Your task to perform on an android device: clear all cookies in the chrome app Image 0: 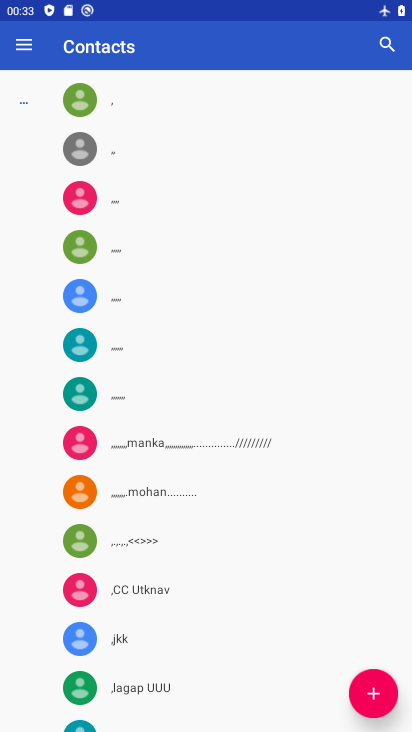
Step 0: press home button
Your task to perform on an android device: clear all cookies in the chrome app Image 1: 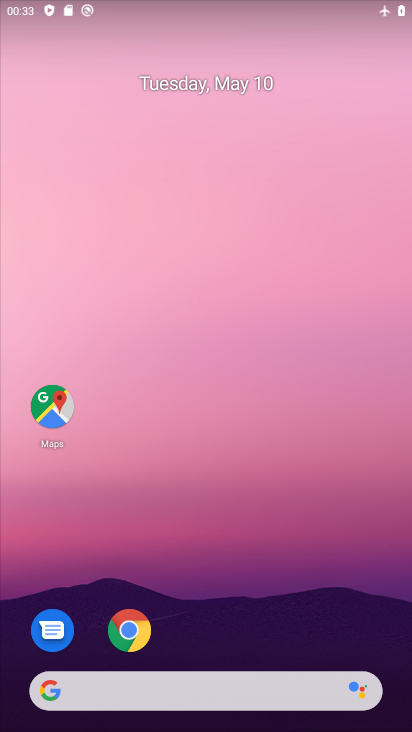
Step 1: click (126, 630)
Your task to perform on an android device: clear all cookies in the chrome app Image 2: 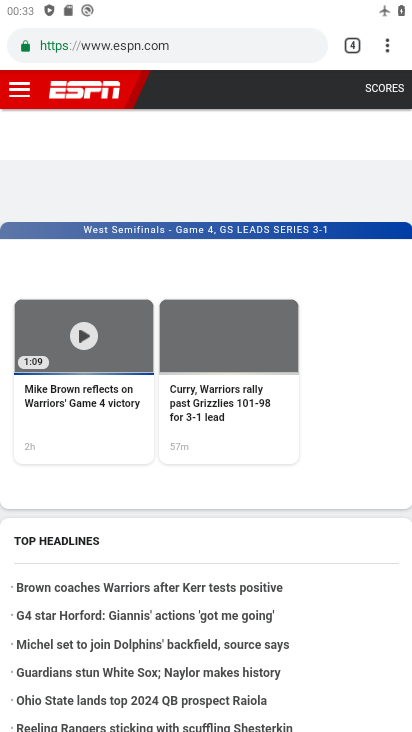
Step 2: click (387, 53)
Your task to perform on an android device: clear all cookies in the chrome app Image 3: 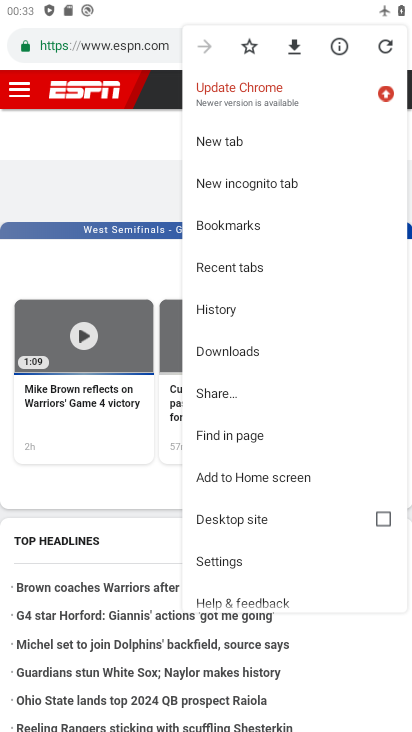
Step 3: click (224, 559)
Your task to perform on an android device: clear all cookies in the chrome app Image 4: 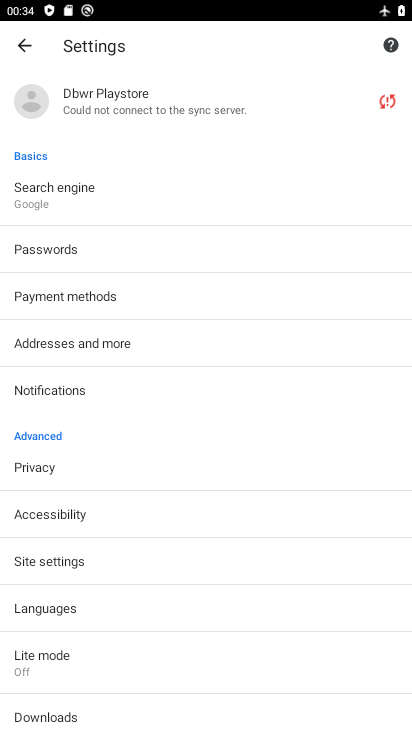
Step 4: click (47, 465)
Your task to perform on an android device: clear all cookies in the chrome app Image 5: 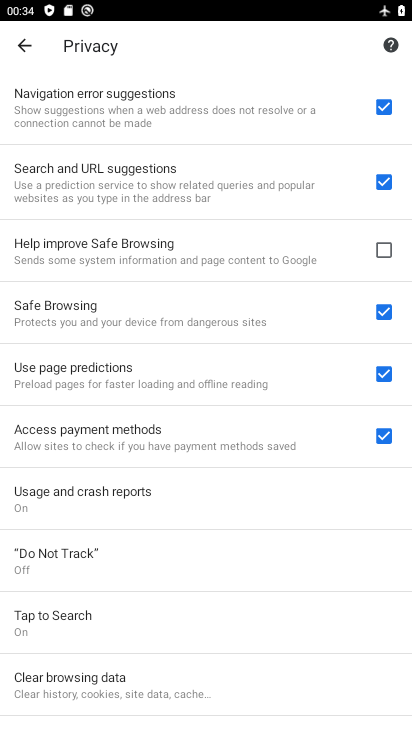
Step 5: drag from (160, 688) to (154, 333)
Your task to perform on an android device: clear all cookies in the chrome app Image 6: 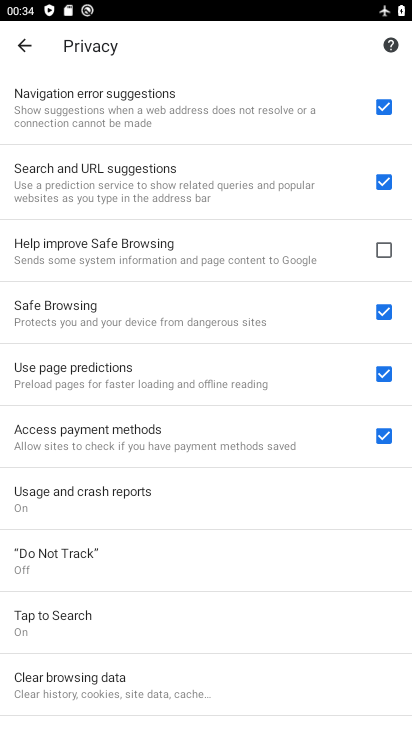
Step 6: click (107, 689)
Your task to perform on an android device: clear all cookies in the chrome app Image 7: 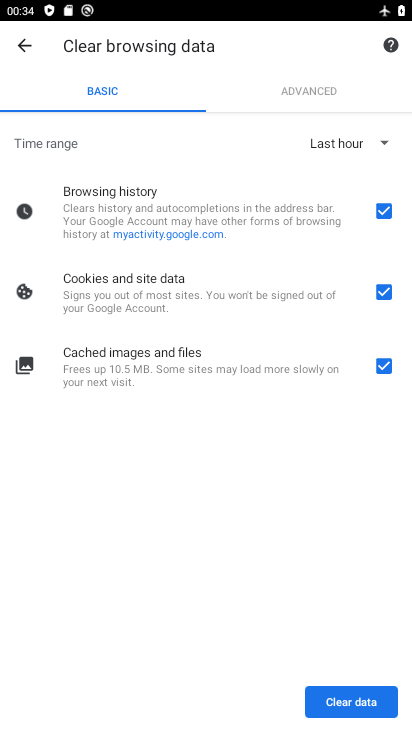
Step 7: click (386, 364)
Your task to perform on an android device: clear all cookies in the chrome app Image 8: 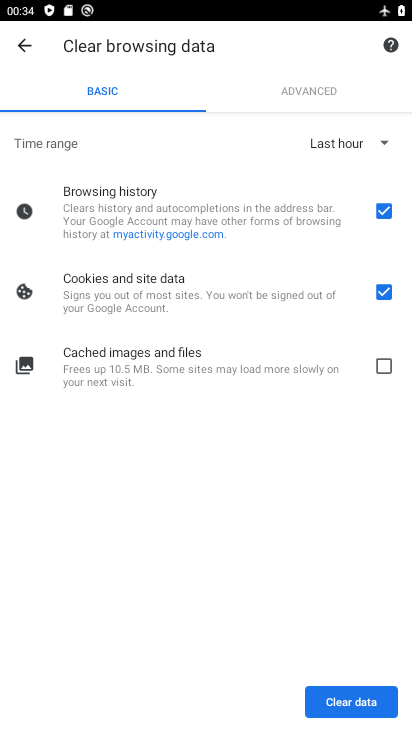
Step 8: click (383, 290)
Your task to perform on an android device: clear all cookies in the chrome app Image 9: 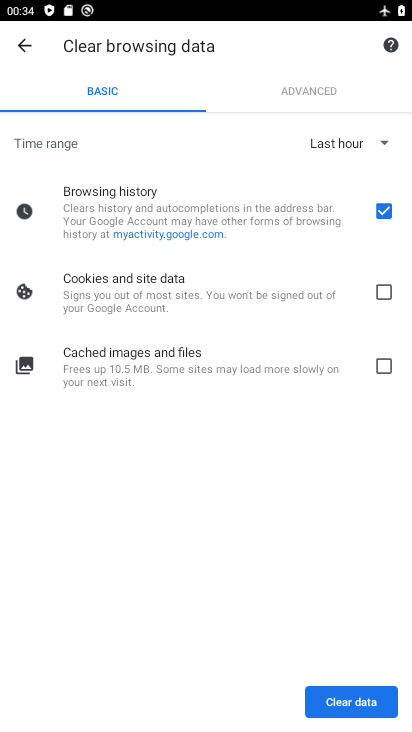
Step 9: click (346, 702)
Your task to perform on an android device: clear all cookies in the chrome app Image 10: 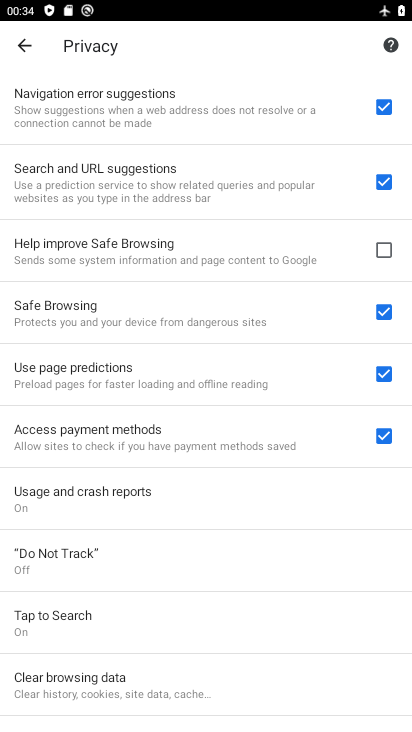
Step 10: task complete